Your task to perform on an android device: toggle show notifications on the lock screen Image 0: 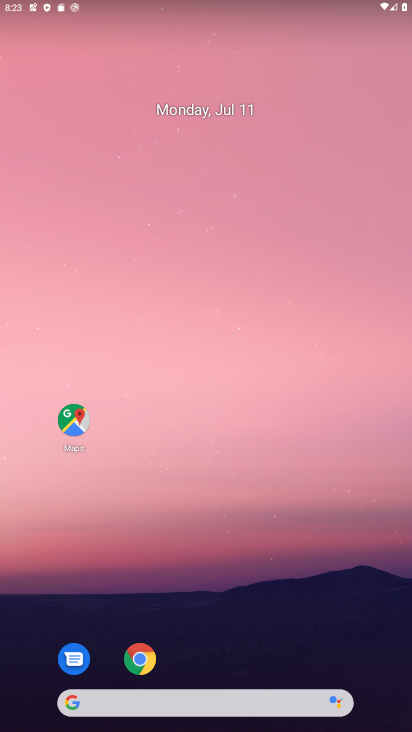
Step 0: click (220, 545)
Your task to perform on an android device: toggle show notifications on the lock screen Image 1: 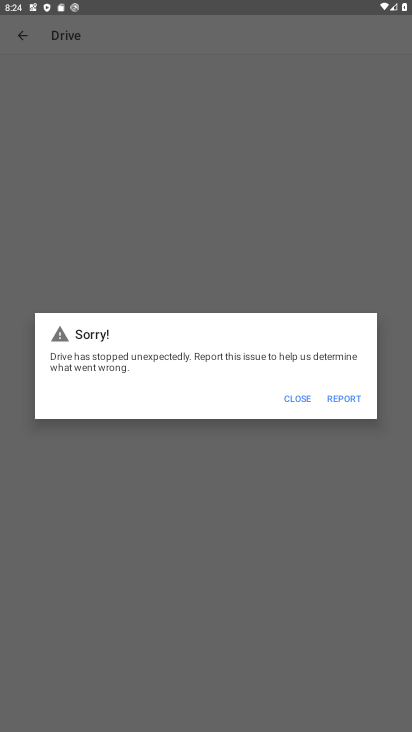
Step 1: press home button
Your task to perform on an android device: toggle show notifications on the lock screen Image 2: 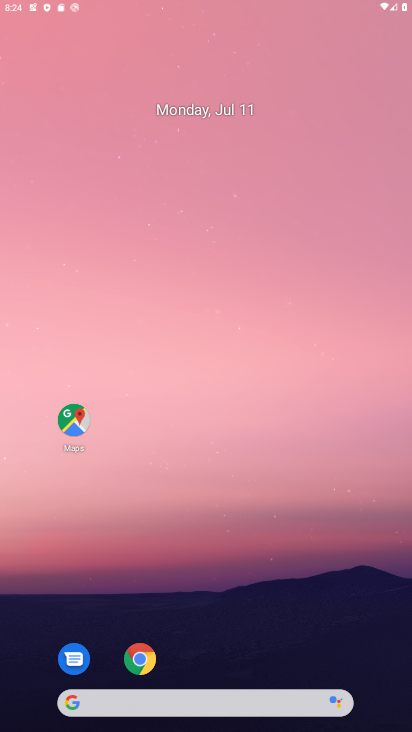
Step 2: drag from (237, 559) to (225, 73)
Your task to perform on an android device: toggle show notifications on the lock screen Image 3: 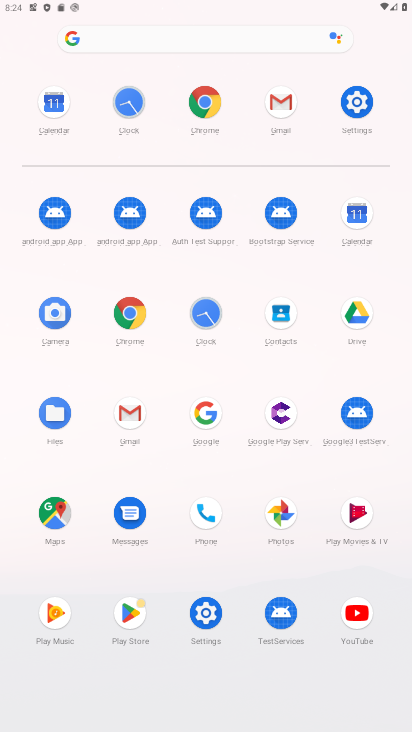
Step 3: click (365, 103)
Your task to perform on an android device: toggle show notifications on the lock screen Image 4: 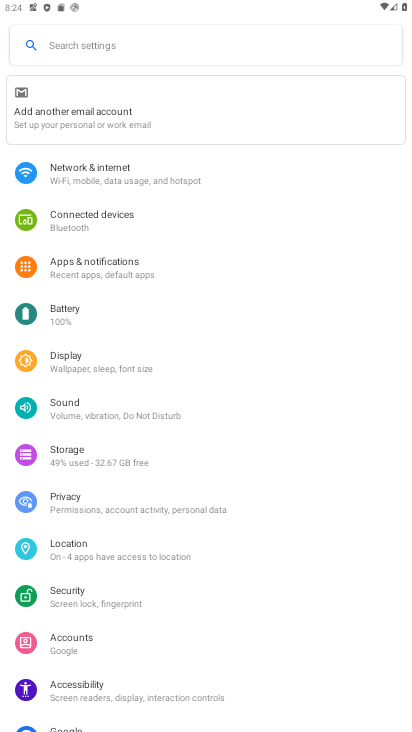
Step 4: click (91, 274)
Your task to perform on an android device: toggle show notifications on the lock screen Image 5: 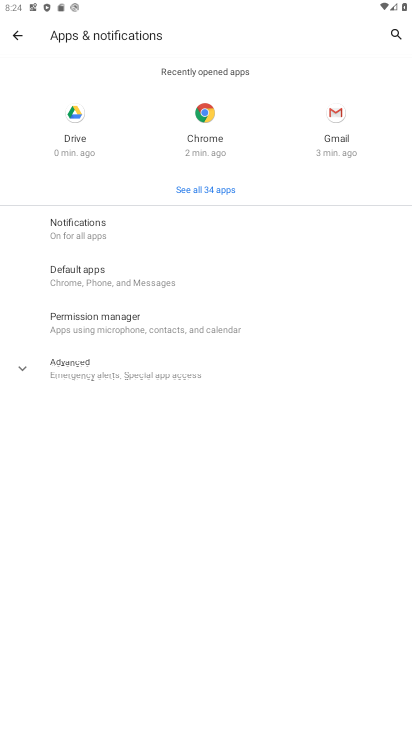
Step 5: click (101, 225)
Your task to perform on an android device: toggle show notifications on the lock screen Image 6: 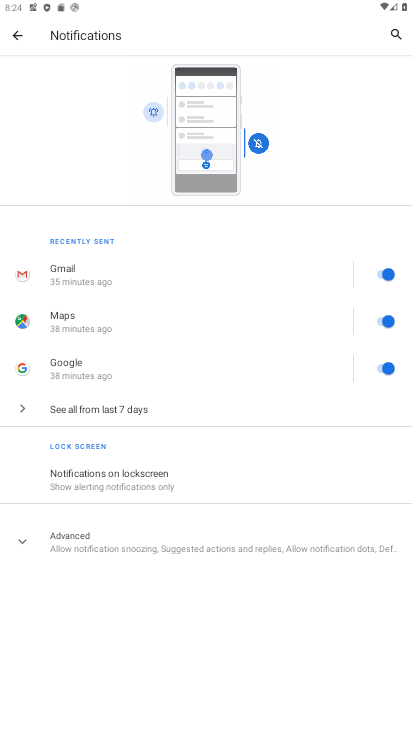
Step 6: click (122, 458)
Your task to perform on an android device: toggle show notifications on the lock screen Image 7: 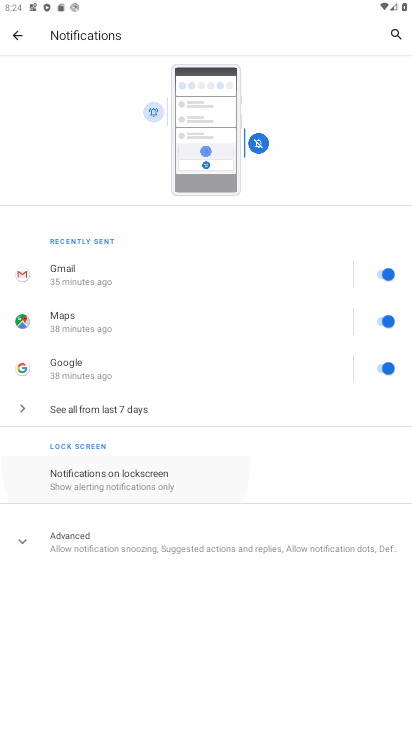
Step 7: click (137, 463)
Your task to perform on an android device: toggle show notifications on the lock screen Image 8: 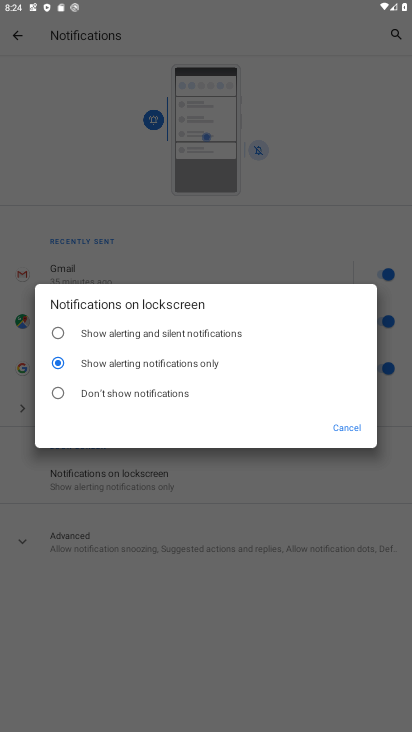
Step 8: click (64, 325)
Your task to perform on an android device: toggle show notifications on the lock screen Image 9: 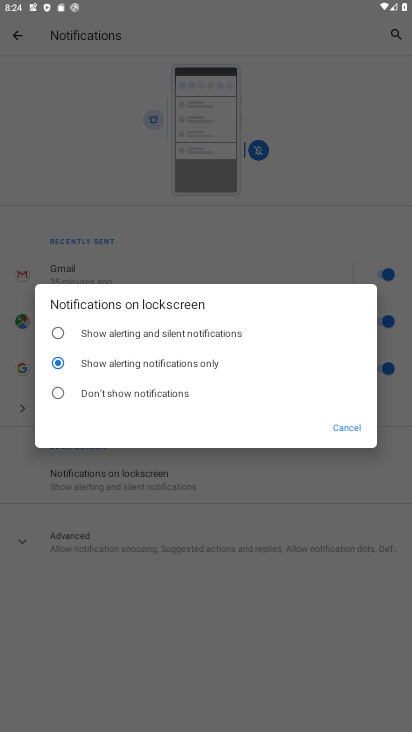
Step 9: click (85, 335)
Your task to perform on an android device: toggle show notifications on the lock screen Image 10: 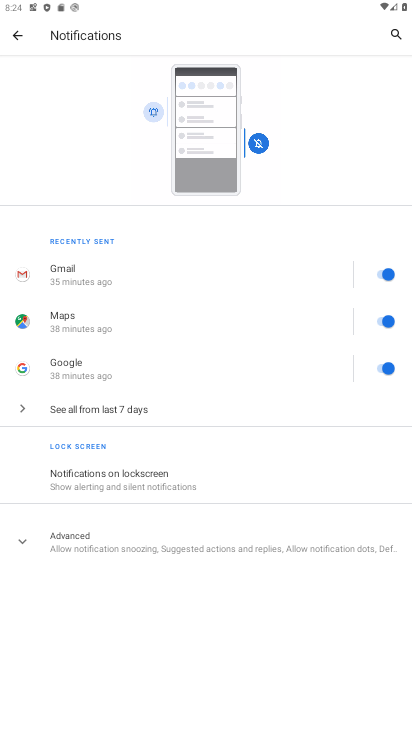
Step 10: task complete